Your task to perform on an android device: Search for vegetarian restaurants on Maps Image 0: 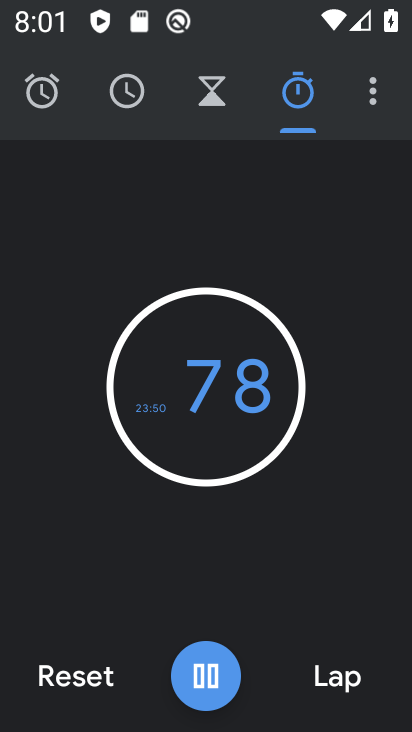
Step 0: press home button
Your task to perform on an android device: Search for vegetarian restaurants on Maps Image 1: 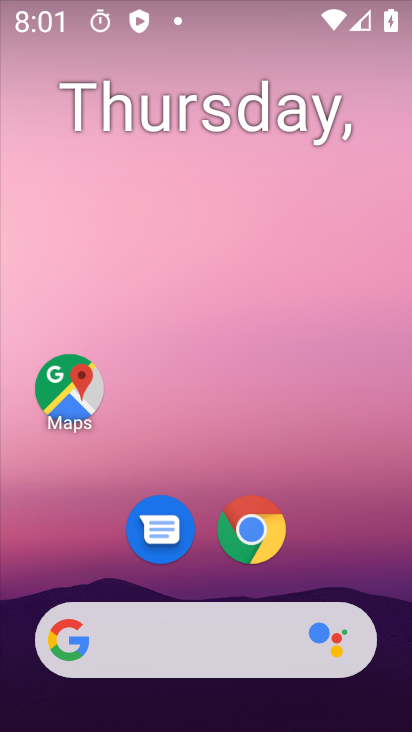
Step 1: click (78, 380)
Your task to perform on an android device: Search for vegetarian restaurants on Maps Image 2: 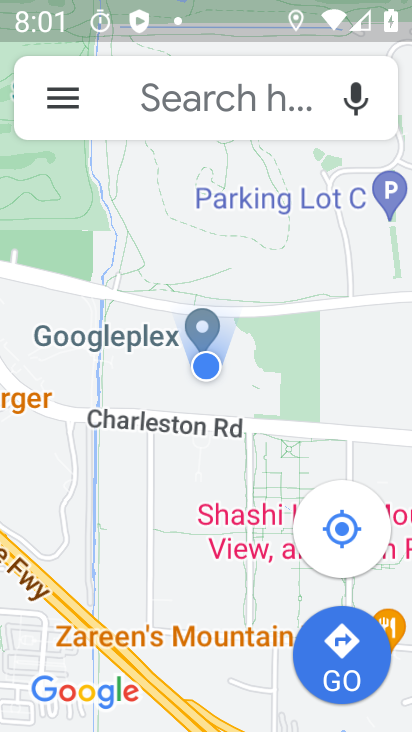
Step 2: click (236, 85)
Your task to perform on an android device: Search for vegetarian restaurants on Maps Image 3: 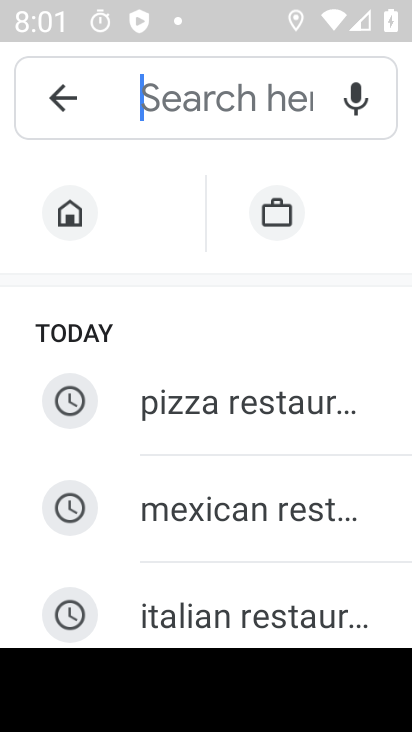
Step 3: type "vegetarian restaurants"
Your task to perform on an android device: Search for vegetarian restaurants on Maps Image 4: 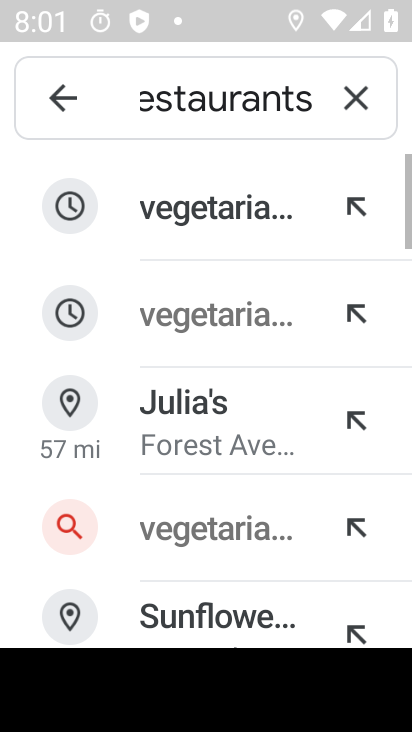
Step 4: click (189, 227)
Your task to perform on an android device: Search for vegetarian restaurants on Maps Image 5: 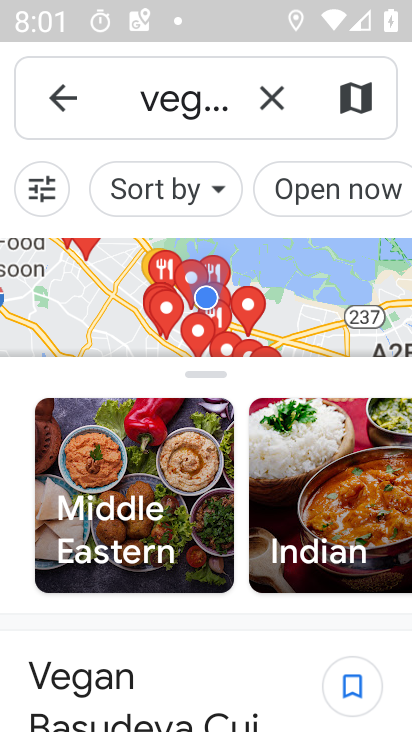
Step 5: task complete